Your task to perform on an android device: Search for pizza restaurants on Maps Image 0: 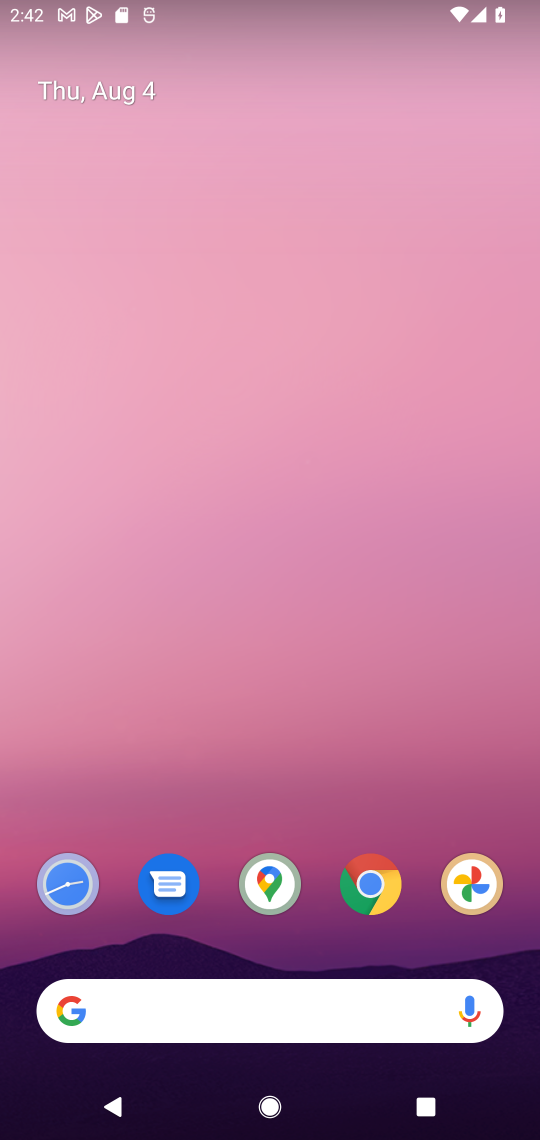
Step 0: drag from (342, 965) to (330, 278)
Your task to perform on an android device: Search for pizza restaurants on Maps Image 1: 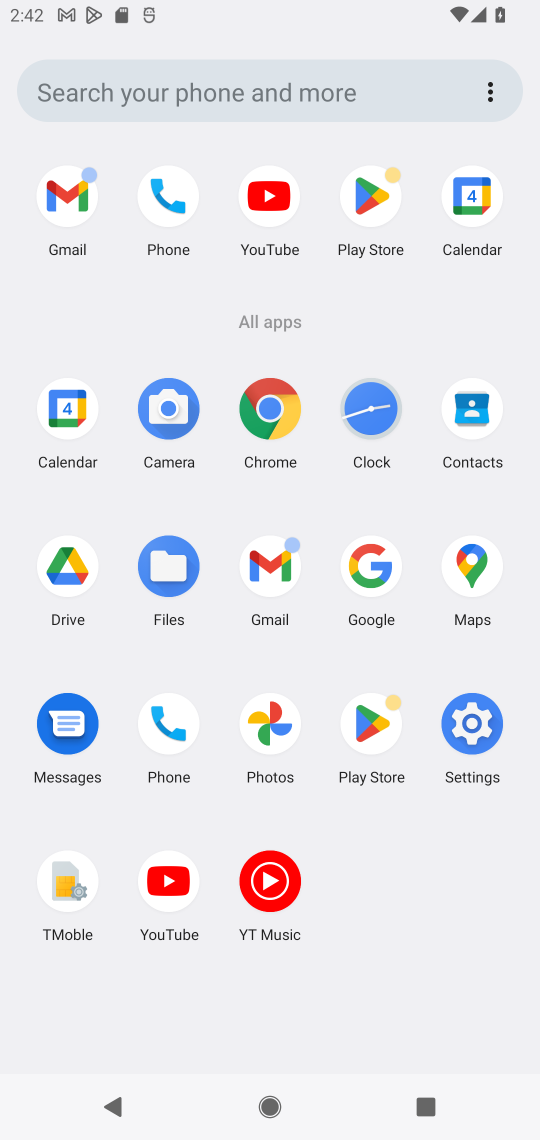
Step 1: click (456, 595)
Your task to perform on an android device: Search for pizza restaurants on Maps Image 2: 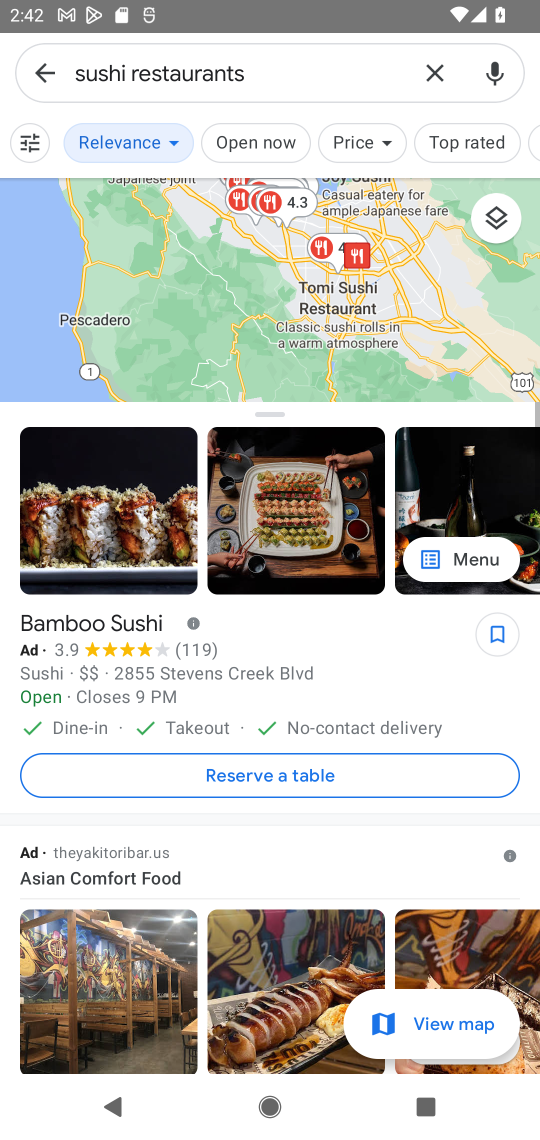
Step 2: click (442, 58)
Your task to perform on an android device: Search for pizza restaurants on Maps Image 3: 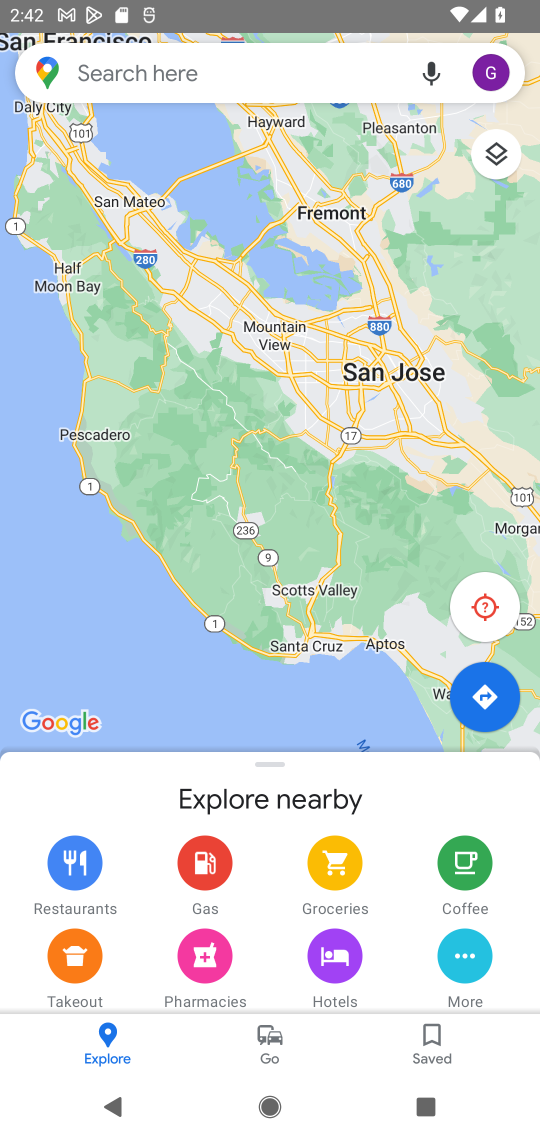
Step 3: click (353, 75)
Your task to perform on an android device: Search for pizza restaurants on Maps Image 4: 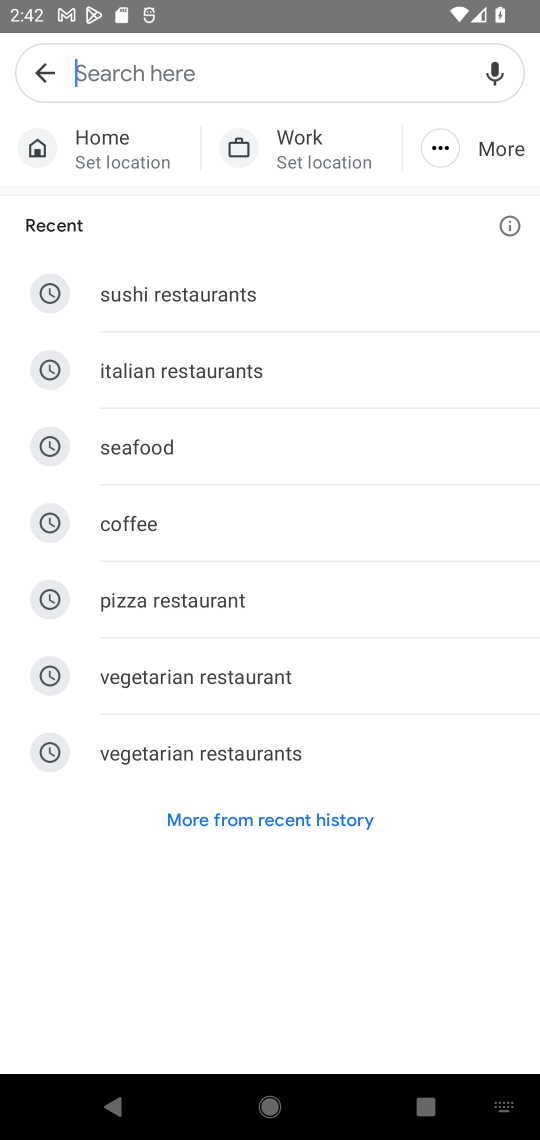
Step 4: type "pizza"
Your task to perform on an android device: Search for pizza restaurants on Maps Image 5: 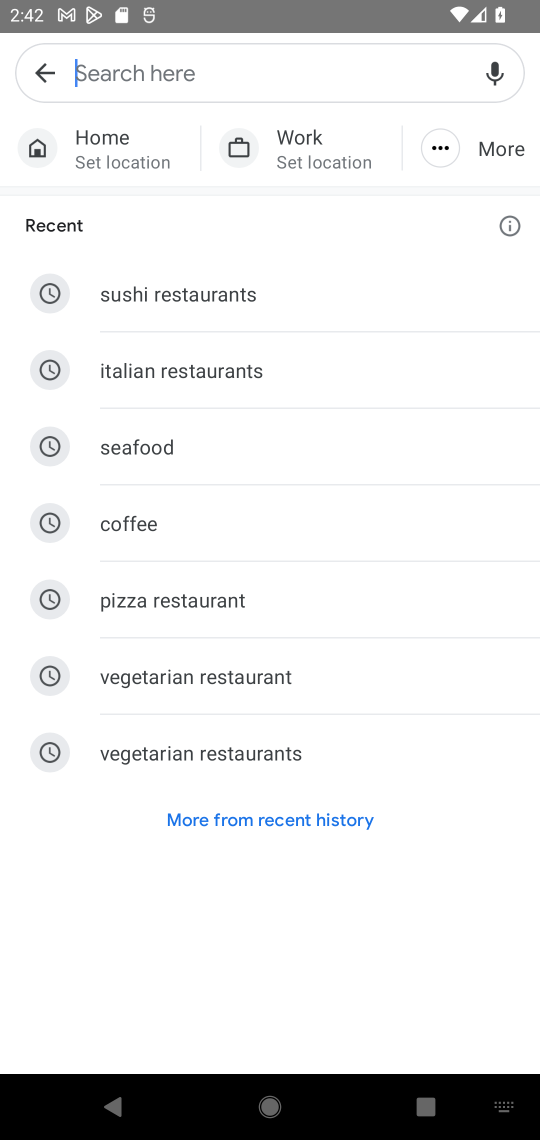
Step 5: click (214, 617)
Your task to perform on an android device: Search for pizza restaurants on Maps Image 6: 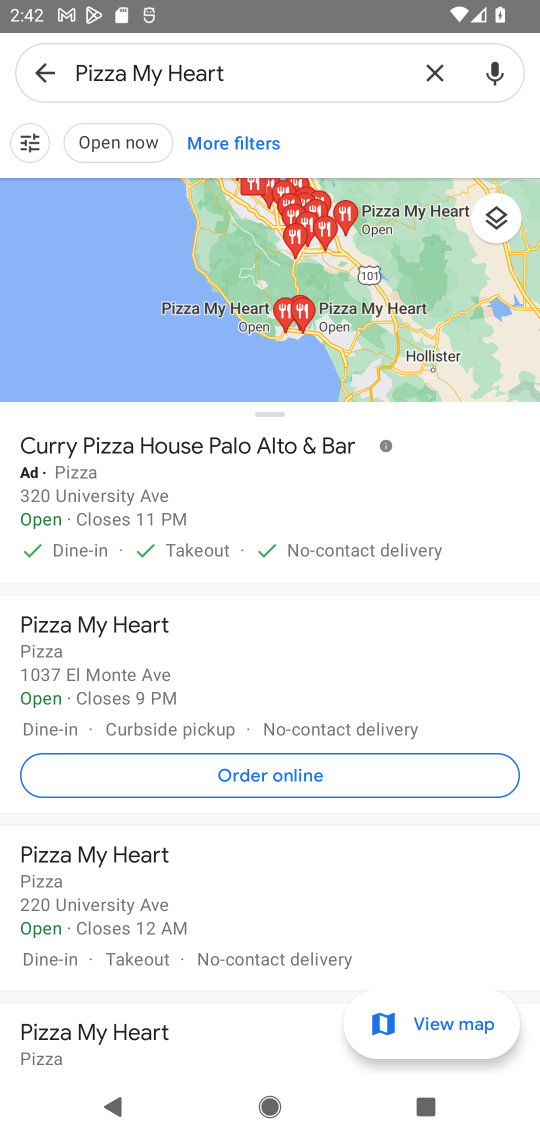
Step 6: task complete